Your task to perform on an android device: What is the recent news? Image 0: 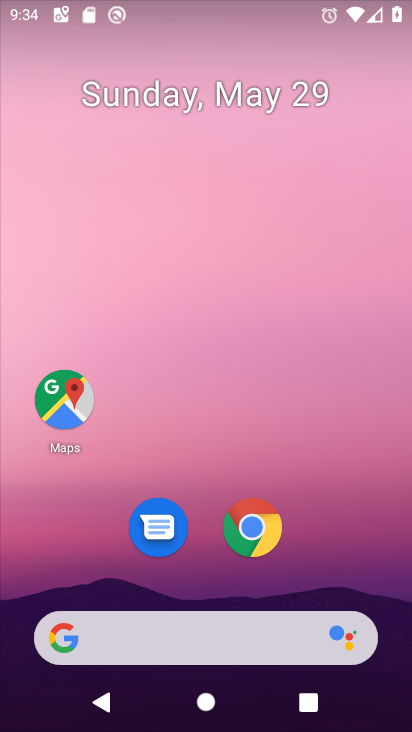
Step 0: drag from (10, 289) to (406, 280)
Your task to perform on an android device: What is the recent news? Image 1: 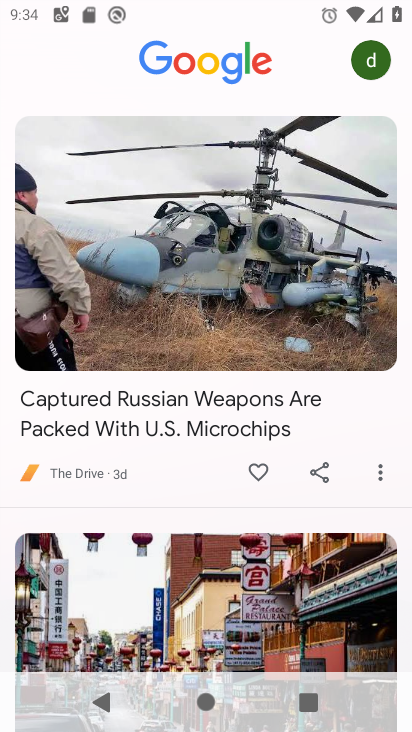
Step 1: task complete